Your task to perform on an android device: Search for vegetarian restaurants on Maps Image 0: 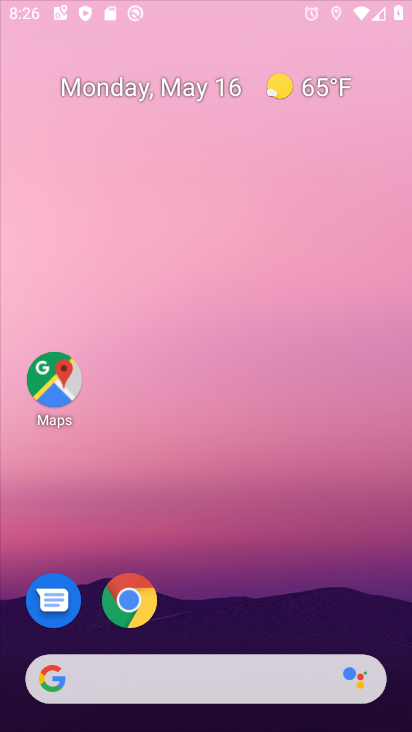
Step 0: click (280, 174)
Your task to perform on an android device: Search for vegetarian restaurants on Maps Image 1: 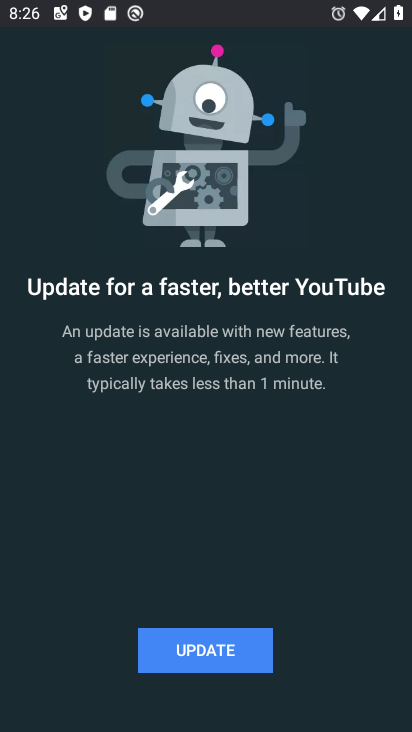
Step 1: press home button
Your task to perform on an android device: Search for vegetarian restaurants on Maps Image 2: 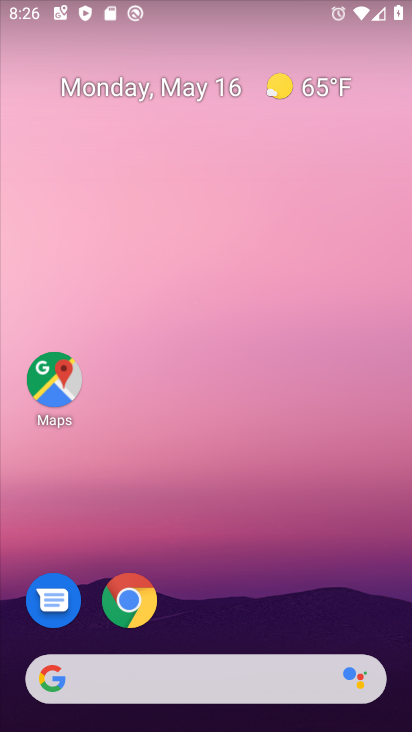
Step 2: drag from (194, 622) to (264, 161)
Your task to perform on an android device: Search for vegetarian restaurants on Maps Image 3: 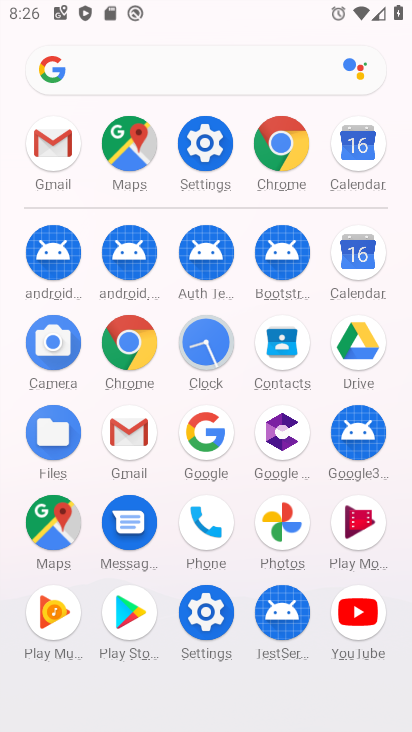
Step 3: click (47, 523)
Your task to perform on an android device: Search for vegetarian restaurants on Maps Image 4: 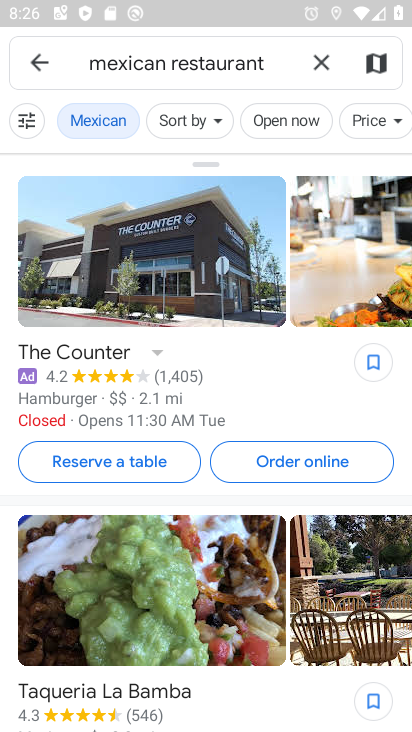
Step 4: click (322, 64)
Your task to perform on an android device: Search for vegetarian restaurants on Maps Image 5: 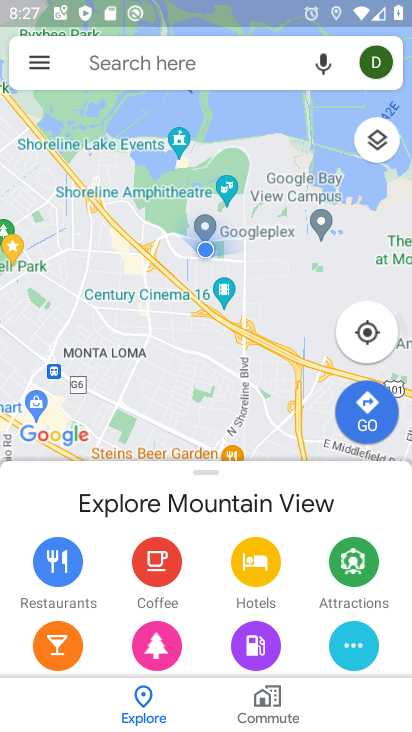
Step 5: drag from (200, 607) to (210, 377)
Your task to perform on an android device: Search for vegetarian restaurants on Maps Image 6: 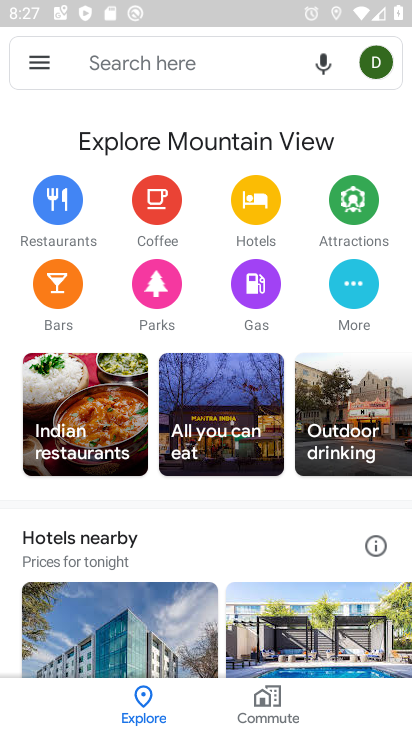
Step 6: click (207, 66)
Your task to perform on an android device: Search for vegetarian restaurants on Maps Image 7: 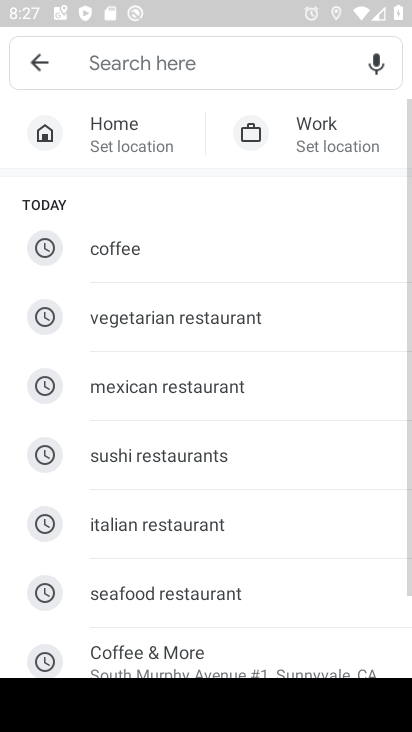
Step 7: click (201, 326)
Your task to perform on an android device: Search for vegetarian restaurants on Maps Image 8: 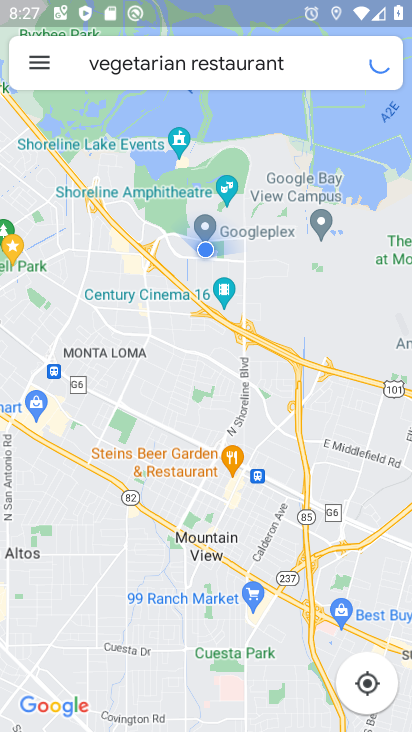
Step 8: task complete